Your task to perform on an android device: turn off airplane mode Image 0: 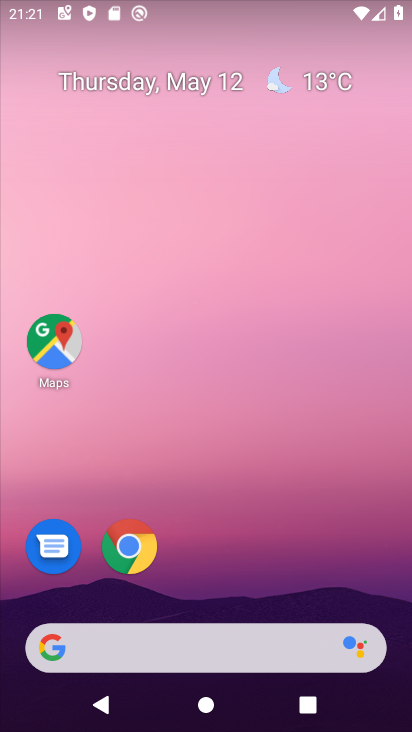
Step 0: drag from (269, 565) to (233, 729)
Your task to perform on an android device: turn off airplane mode Image 1: 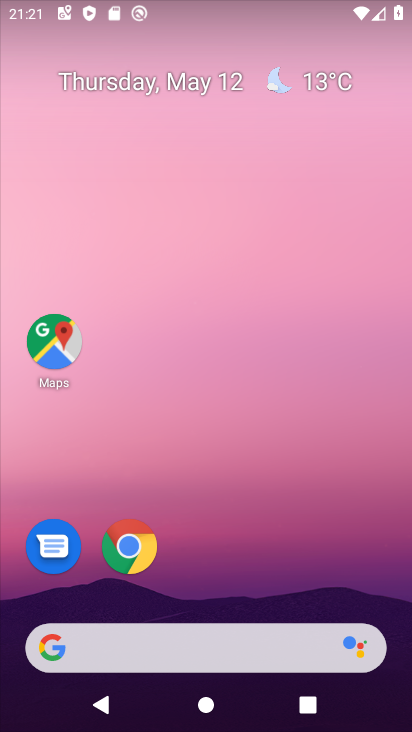
Step 1: task complete